Your task to perform on an android device: Go to wifi settings Image 0: 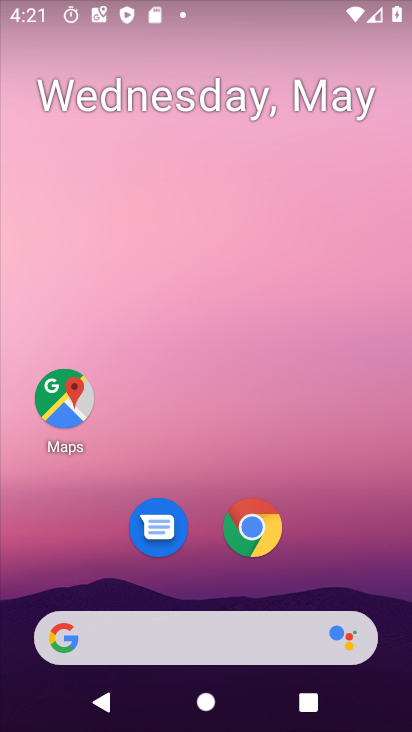
Step 0: press home button
Your task to perform on an android device: Go to wifi settings Image 1: 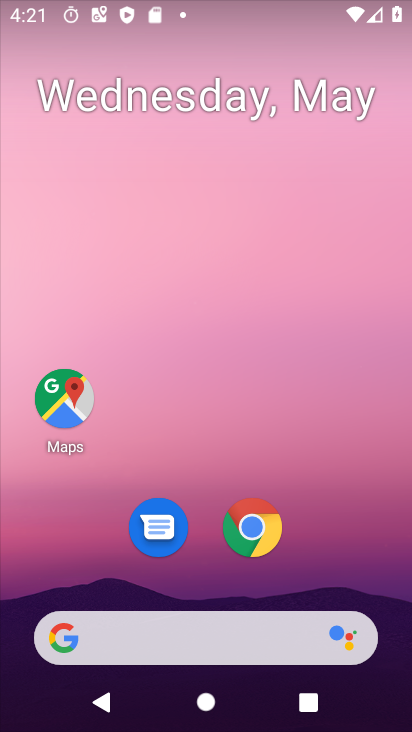
Step 1: press home button
Your task to perform on an android device: Go to wifi settings Image 2: 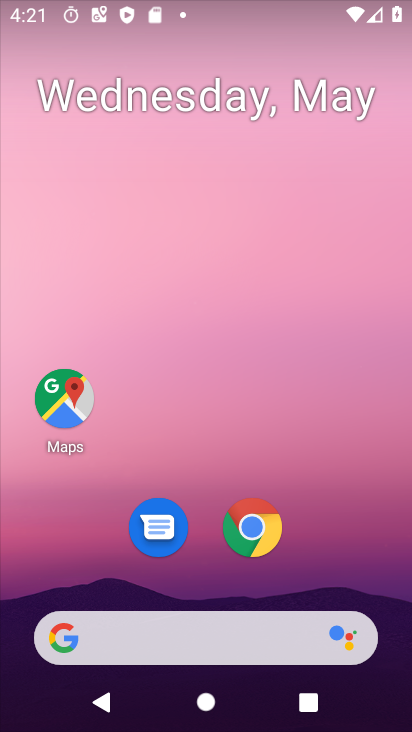
Step 2: press home button
Your task to perform on an android device: Go to wifi settings Image 3: 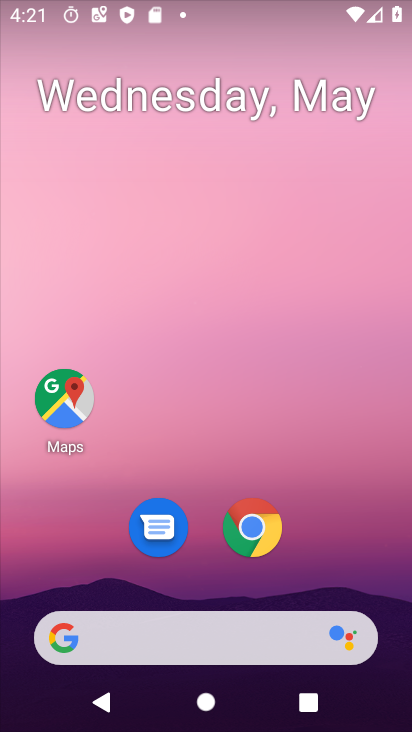
Step 3: drag from (346, 560) to (347, 165)
Your task to perform on an android device: Go to wifi settings Image 4: 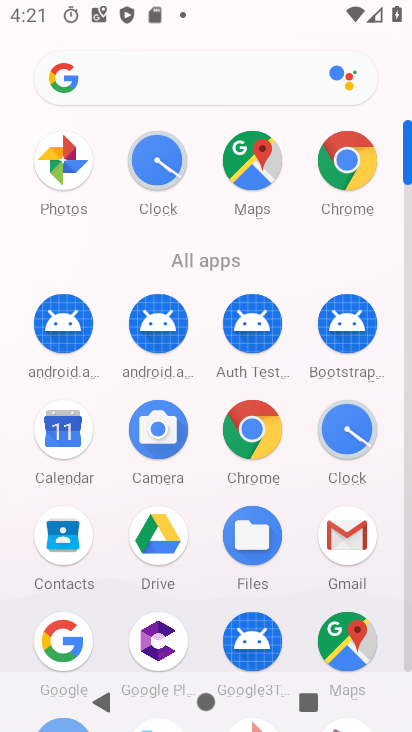
Step 4: drag from (249, 6) to (244, 111)
Your task to perform on an android device: Go to wifi settings Image 5: 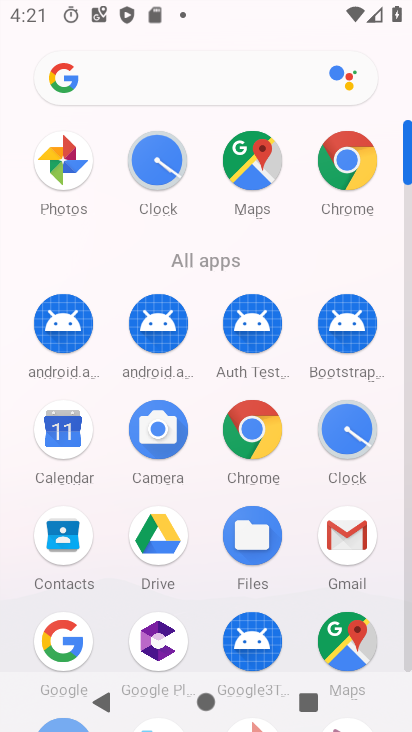
Step 5: drag from (138, 9) to (161, 188)
Your task to perform on an android device: Go to wifi settings Image 6: 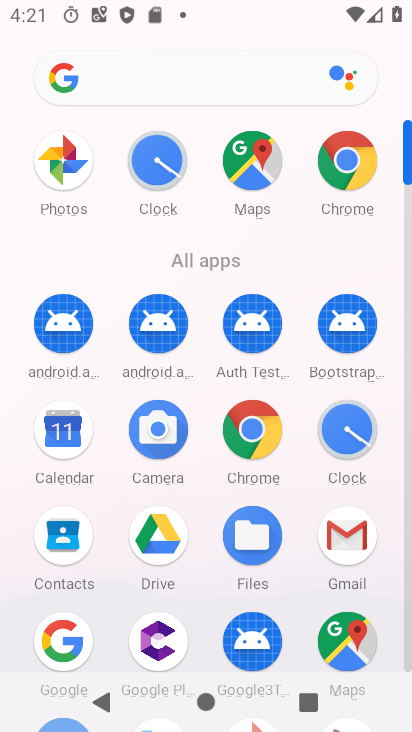
Step 6: drag from (221, 5) to (236, 257)
Your task to perform on an android device: Go to wifi settings Image 7: 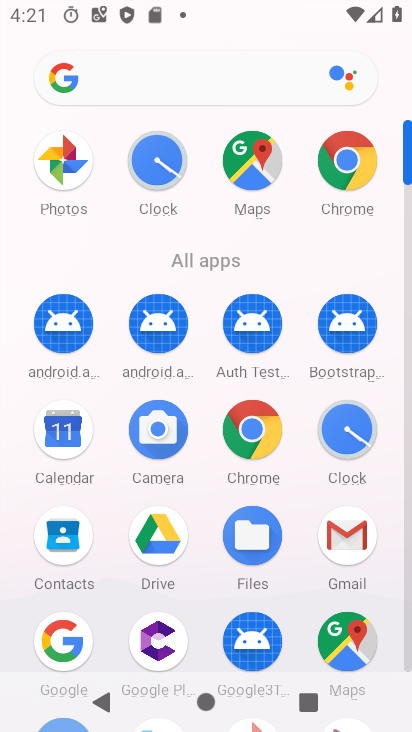
Step 7: drag from (184, 10) to (219, 417)
Your task to perform on an android device: Go to wifi settings Image 8: 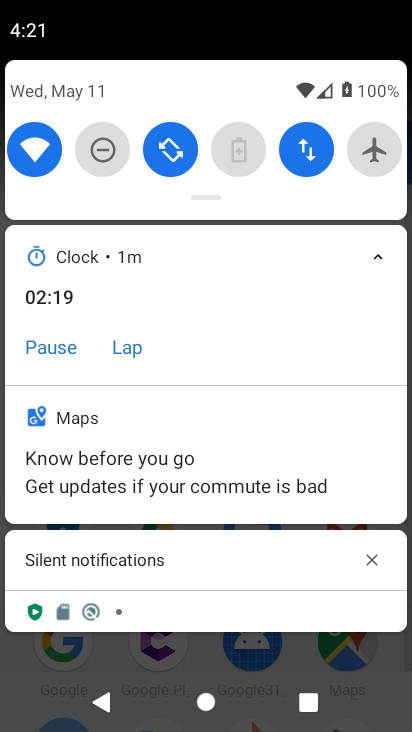
Step 8: click (43, 156)
Your task to perform on an android device: Go to wifi settings Image 9: 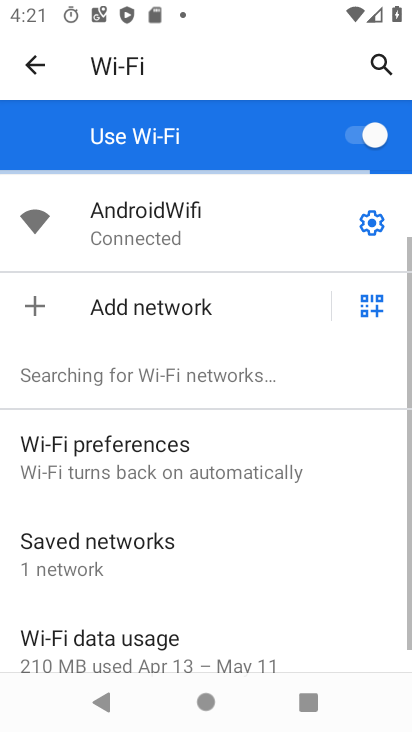
Step 9: task complete